Your task to perform on an android device: toggle notification dots Image 0: 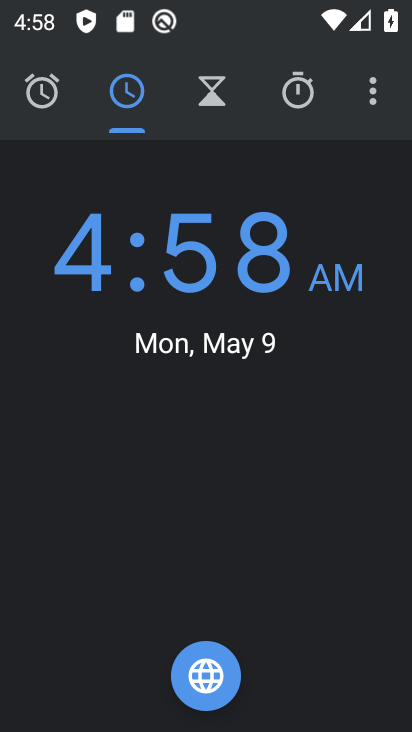
Step 0: press home button
Your task to perform on an android device: toggle notification dots Image 1: 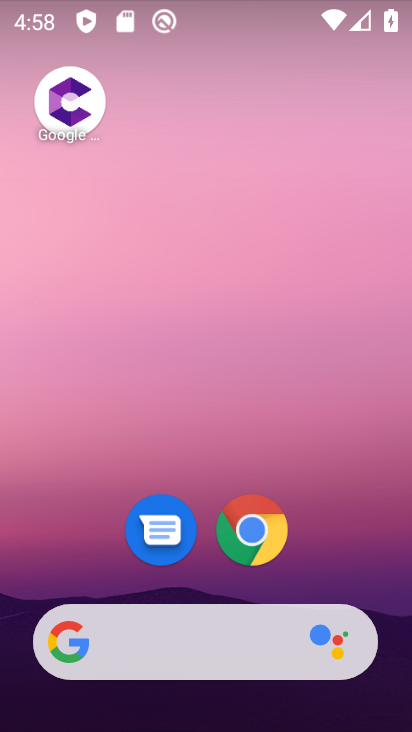
Step 1: drag from (318, 536) to (244, 38)
Your task to perform on an android device: toggle notification dots Image 2: 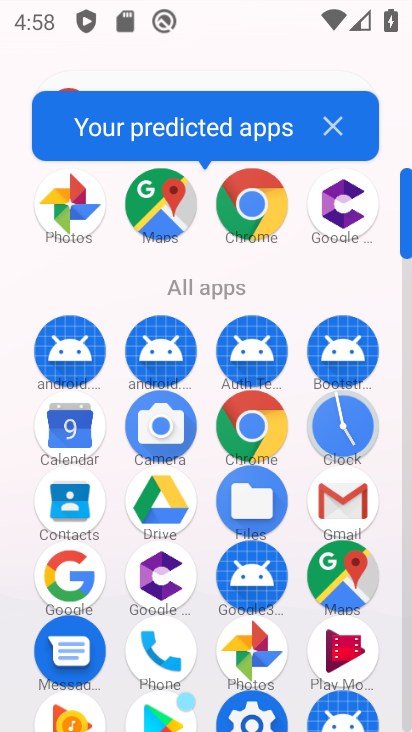
Step 2: click (255, 710)
Your task to perform on an android device: toggle notification dots Image 3: 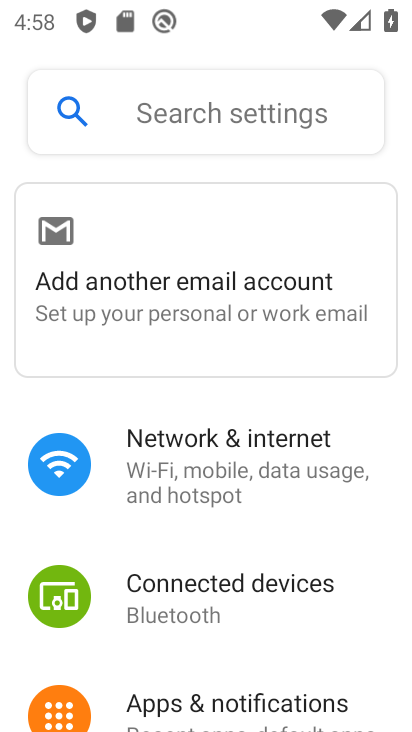
Step 3: click (253, 705)
Your task to perform on an android device: toggle notification dots Image 4: 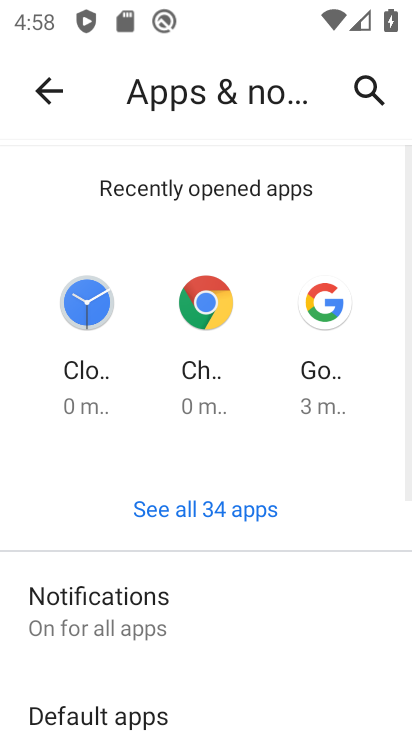
Step 4: click (181, 625)
Your task to perform on an android device: toggle notification dots Image 5: 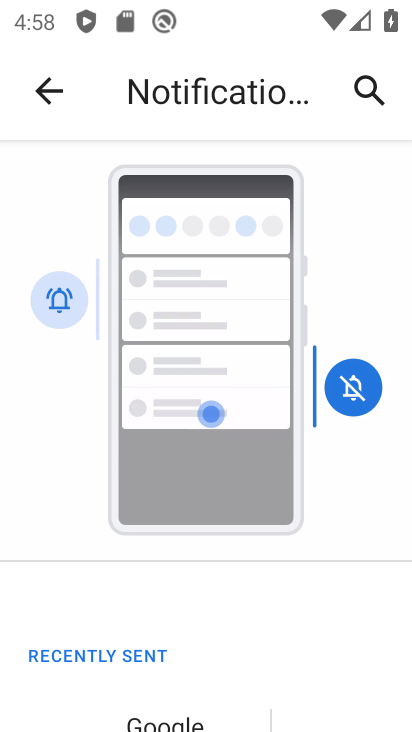
Step 5: drag from (264, 646) to (235, 121)
Your task to perform on an android device: toggle notification dots Image 6: 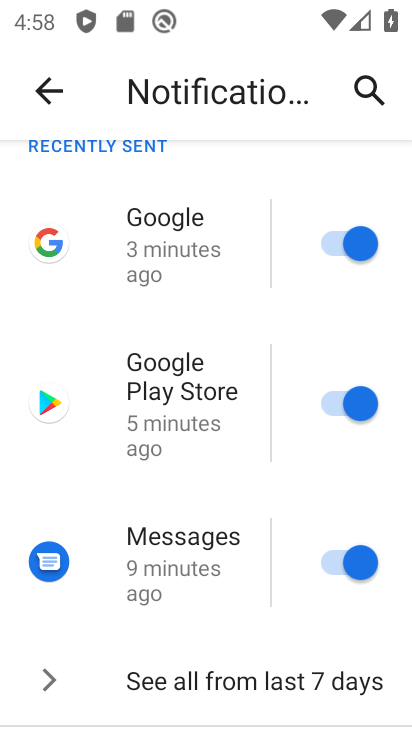
Step 6: drag from (241, 675) to (247, 297)
Your task to perform on an android device: toggle notification dots Image 7: 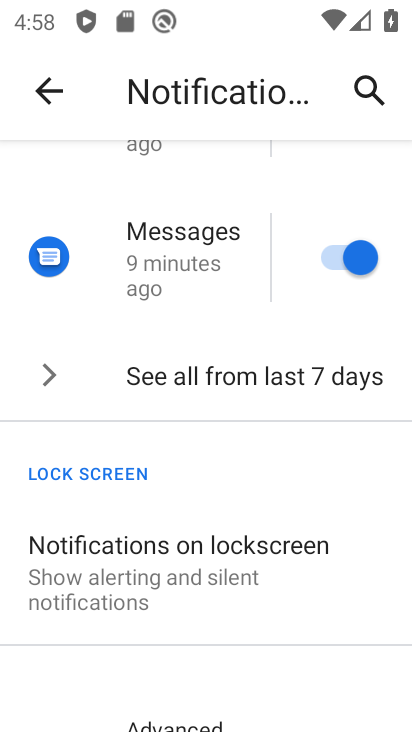
Step 7: click (228, 712)
Your task to perform on an android device: toggle notification dots Image 8: 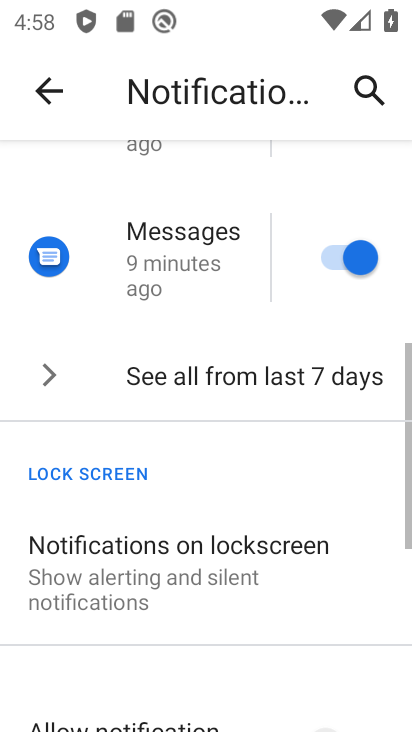
Step 8: drag from (228, 710) to (192, 284)
Your task to perform on an android device: toggle notification dots Image 9: 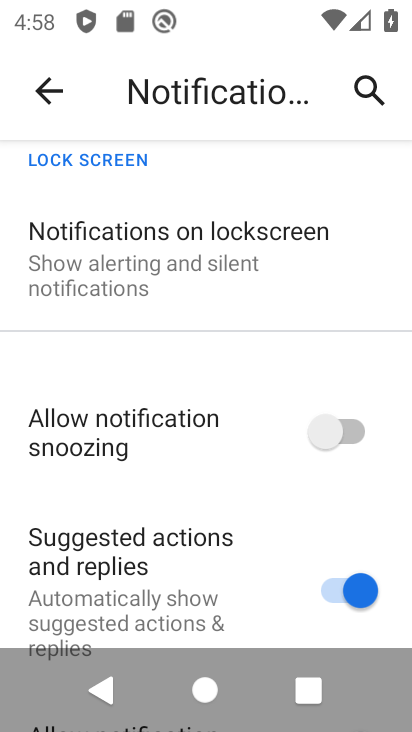
Step 9: drag from (264, 525) to (231, 320)
Your task to perform on an android device: toggle notification dots Image 10: 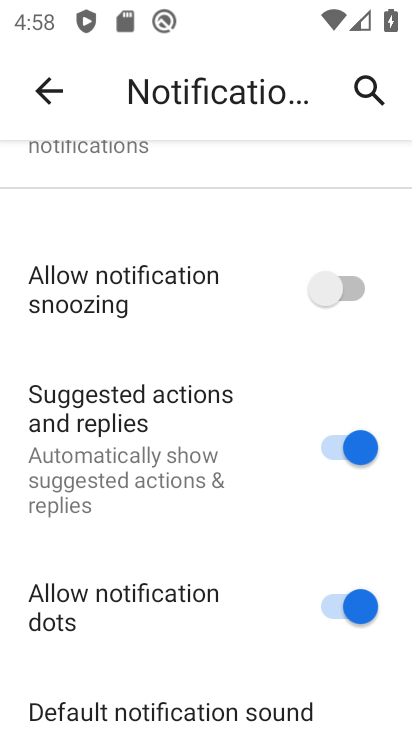
Step 10: click (334, 605)
Your task to perform on an android device: toggle notification dots Image 11: 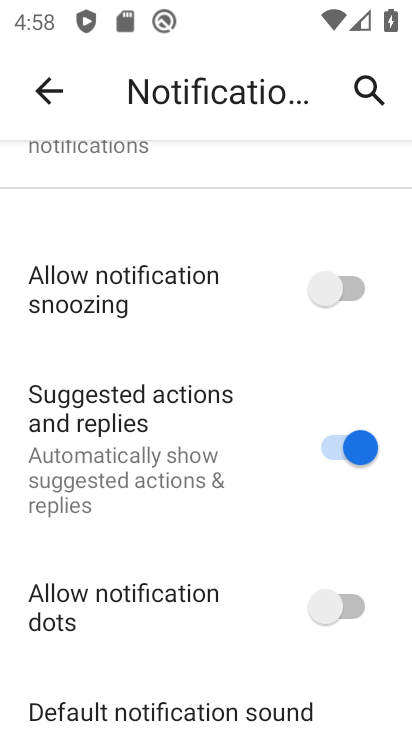
Step 11: task complete